Your task to perform on an android device: Toggle the flashlight Image 0: 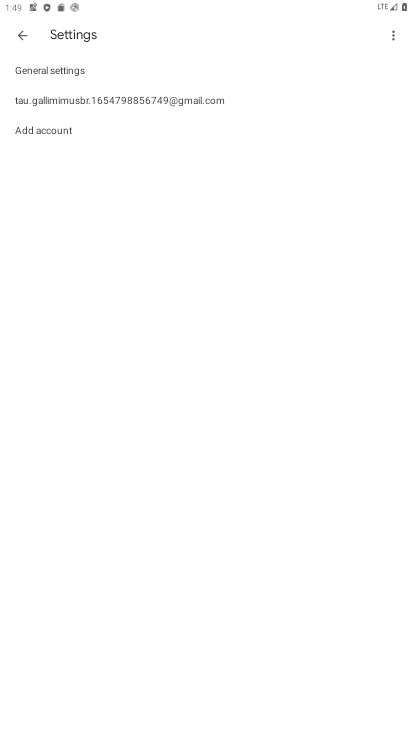
Step 0: press home button
Your task to perform on an android device: Toggle the flashlight Image 1: 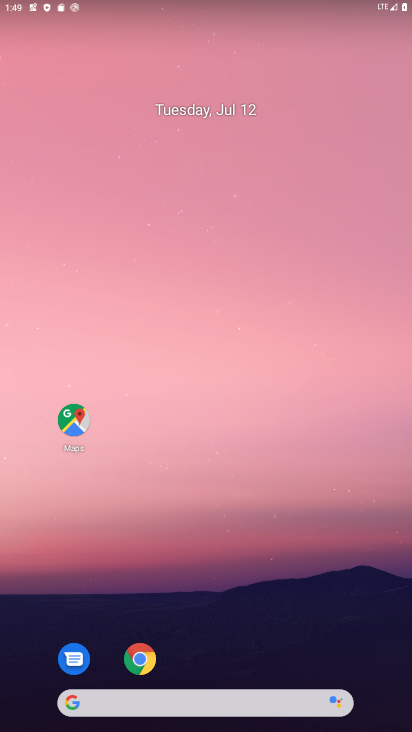
Step 1: drag from (194, 716) to (182, 128)
Your task to perform on an android device: Toggle the flashlight Image 2: 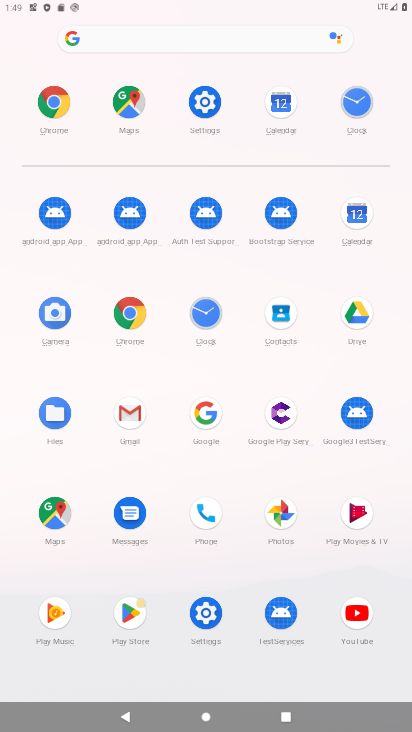
Step 2: click (197, 100)
Your task to perform on an android device: Toggle the flashlight Image 3: 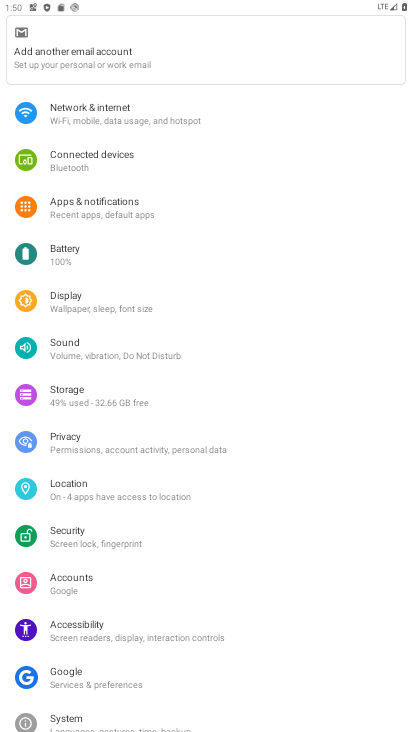
Step 3: task complete